Your task to perform on an android device: move an email to a new category in the gmail app Image 0: 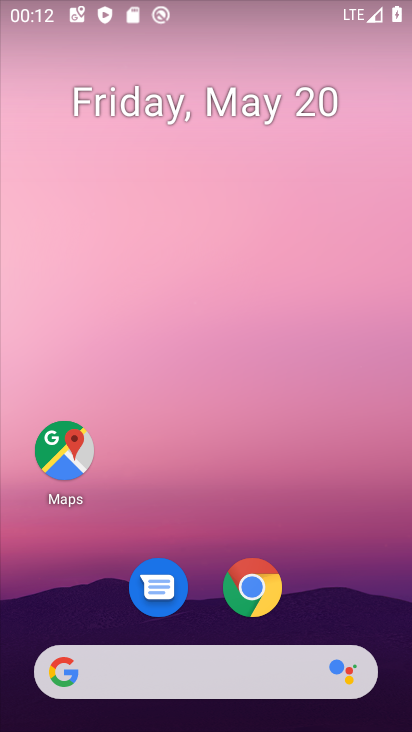
Step 0: drag from (240, 692) to (268, 126)
Your task to perform on an android device: move an email to a new category in the gmail app Image 1: 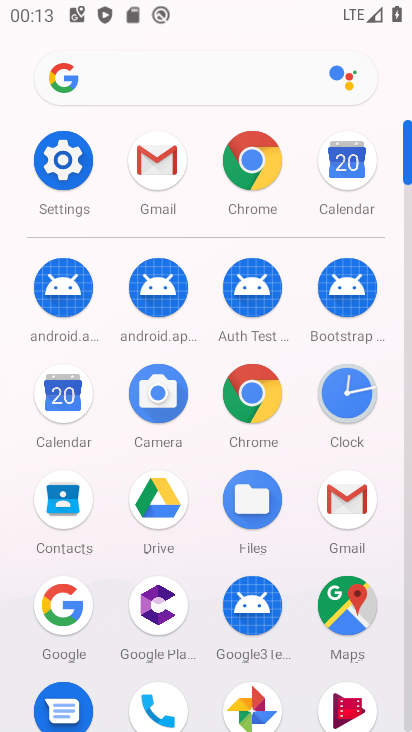
Step 1: click (348, 495)
Your task to perform on an android device: move an email to a new category in the gmail app Image 2: 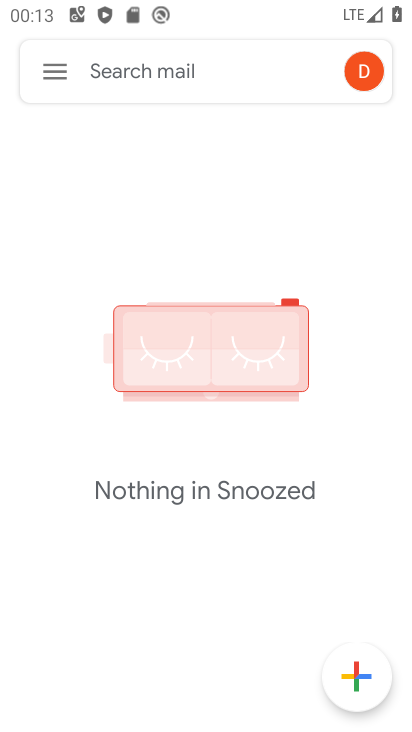
Step 2: click (55, 78)
Your task to perform on an android device: move an email to a new category in the gmail app Image 3: 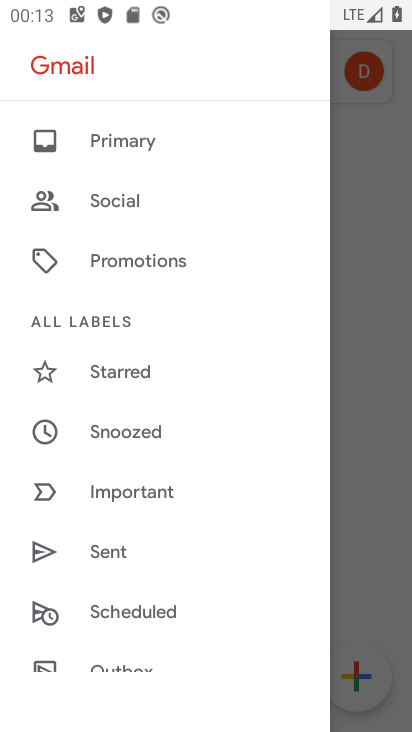
Step 3: drag from (157, 556) to (176, 356)
Your task to perform on an android device: move an email to a new category in the gmail app Image 4: 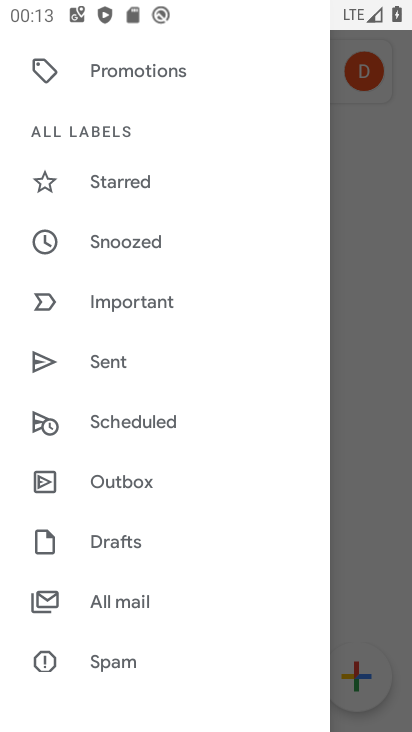
Step 4: drag from (152, 598) to (164, 449)
Your task to perform on an android device: move an email to a new category in the gmail app Image 5: 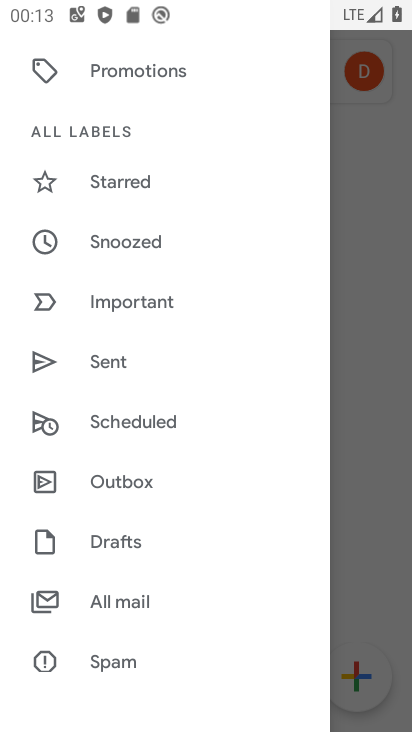
Step 5: drag from (91, 556) to (124, 187)
Your task to perform on an android device: move an email to a new category in the gmail app Image 6: 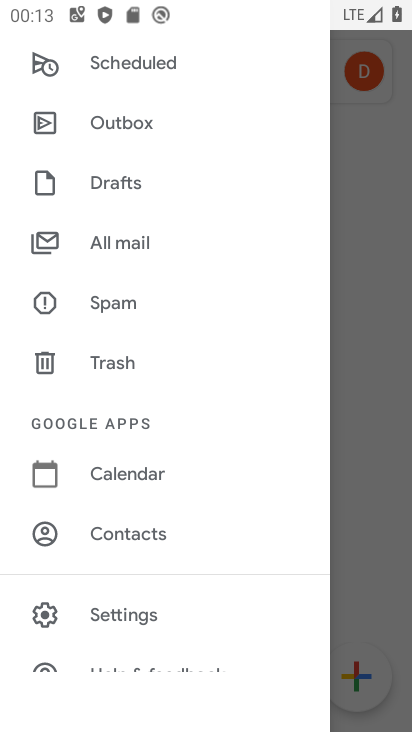
Step 6: click (119, 615)
Your task to perform on an android device: move an email to a new category in the gmail app Image 7: 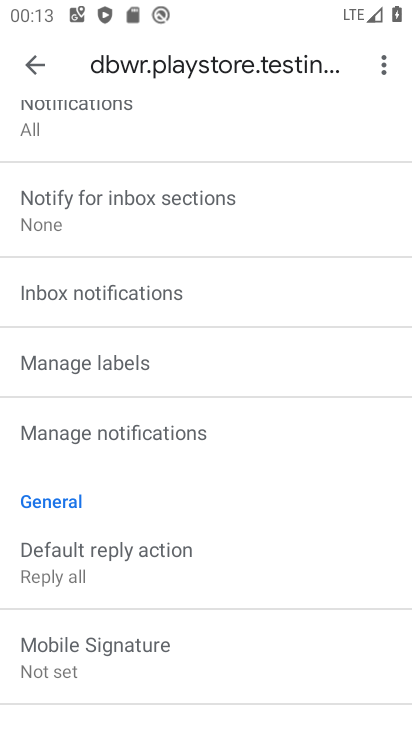
Step 7: drag from (81, 324) to (161, 510)
Your task to perform on an android device: move an email to a new category in the gmail app Image 8: 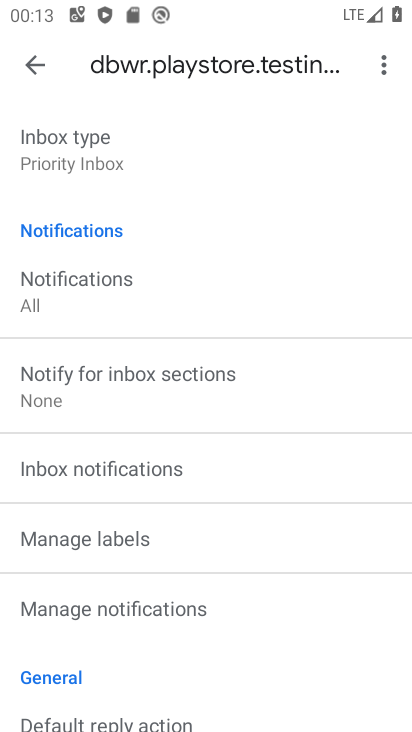
Step 8: click (99, 164)
Your task to perform on an android device: move an email to a new category in the gmail app Image 9: 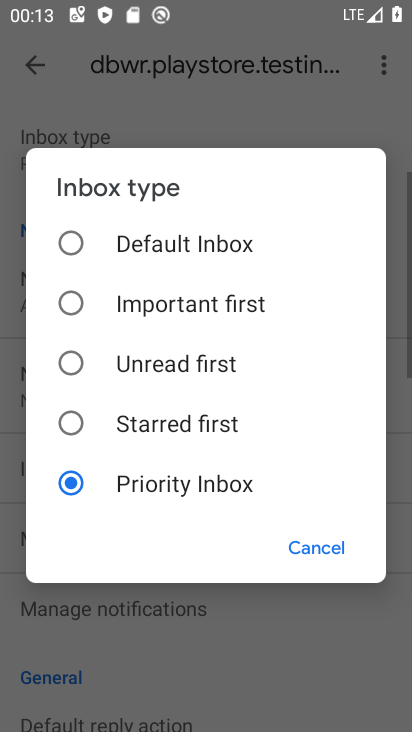
Step 9: click (126, 244)
Your task to perform on an android device: move an email to a new category in the gmail app Image 10: 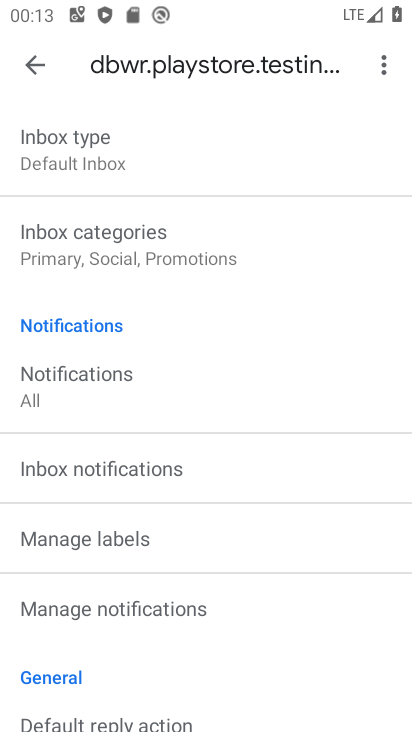
Step 10: click (116, 249)
Your task to perform on an android device: move an email to a new category in the gmail app Image 11: 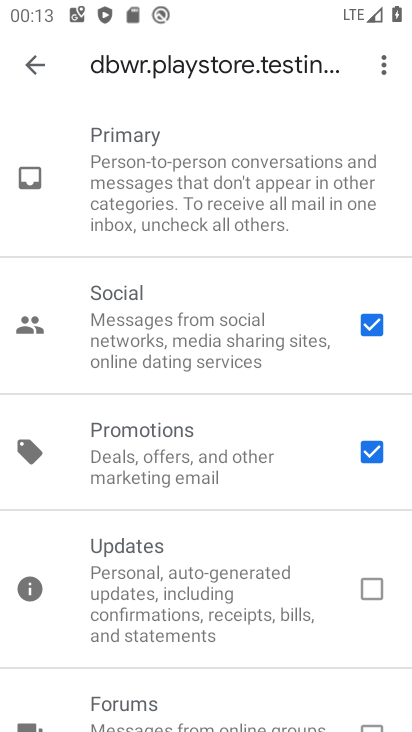
Step 11: click (369, 453)
Your task to perform on an android device: move an email to a new category in the gmail app Image 12: 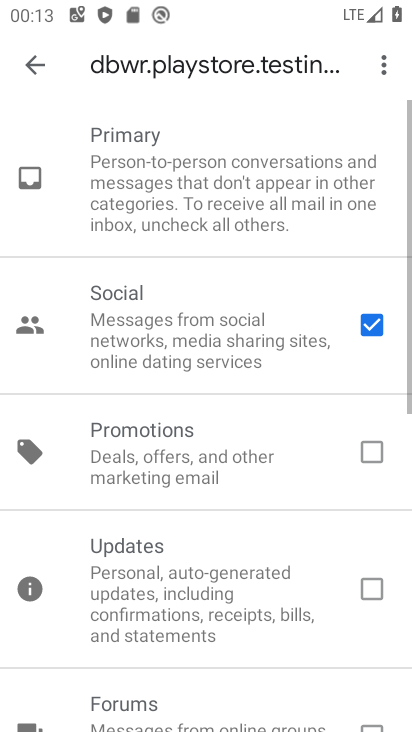
Step 12: click (367, 327)
Your task to perform on an android device: move an email to a new category in the gmail app Image 13: 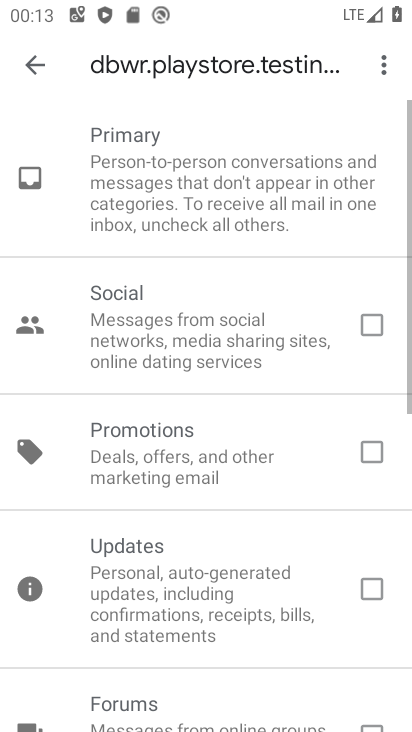
Step 13: click (373, 591)
Your task to perform on an android device: move an email to a new category in the gmail app Image 14: 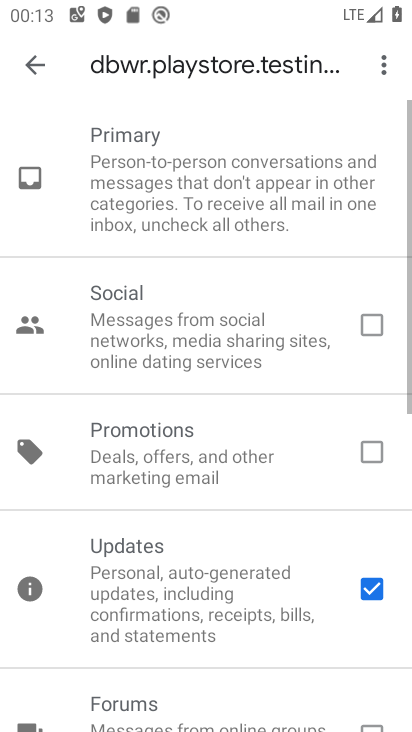
Step 14: task complete